Your task to perform on an android device: Search for sushi restaurants on Maps Image 0: 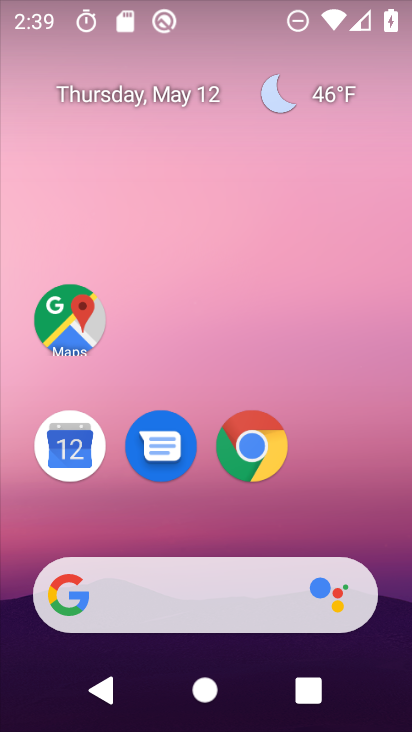
Step 0: click (81, 331)
Your task to perform on an android device: Search for sushi restaurants on Maps Image 1: 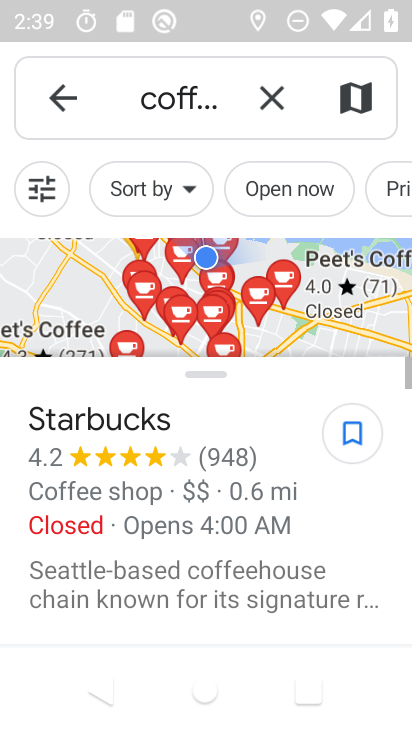
Step 1: click (280, 92)
Your task to perform on an android device: Search for sushi restaurants on Maps Image 2: 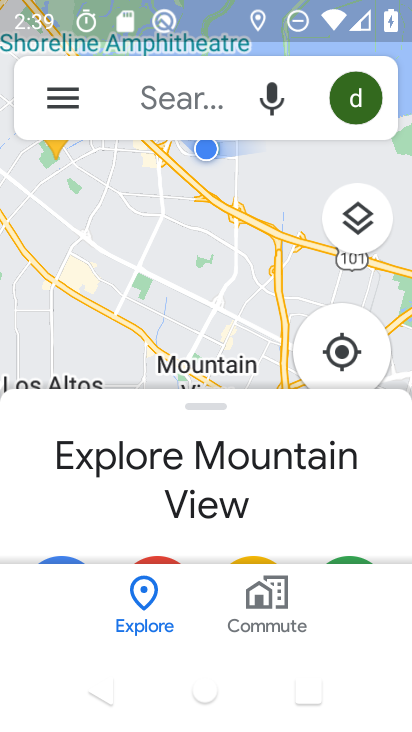
Step 2: click (228, 79)
Your task to perform on an android device: Search for sushi restaurants on Maps Image 3: 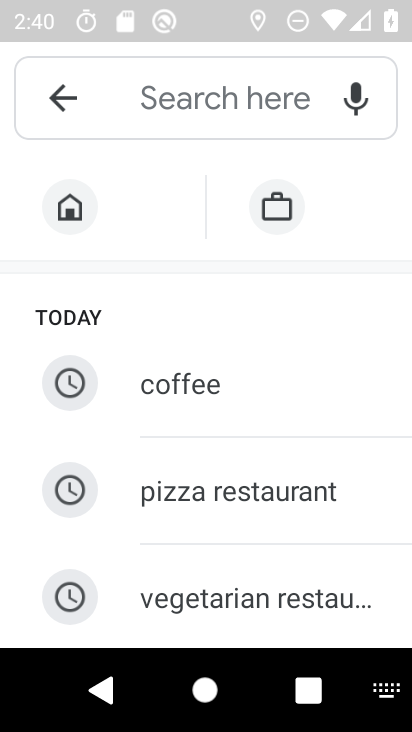
Step 3: type "sushi restaurants"
Your task to perform on an android device: Search for sushi restaurants on Maps Image 4: 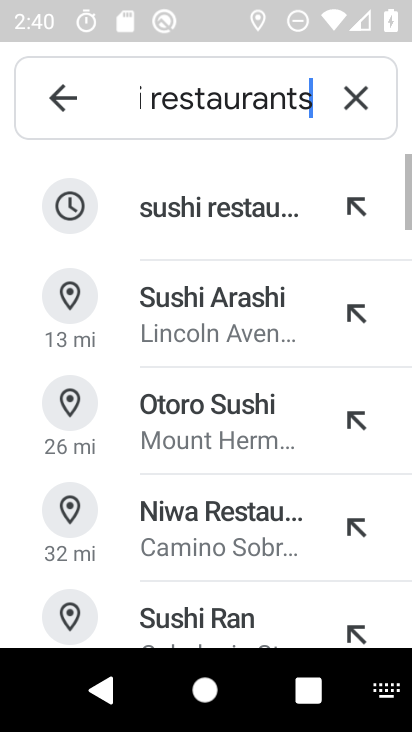
Step 4: click (201, 205)
Your task to perform on an android device: Search for sushi restaurants on Maps Image 5: 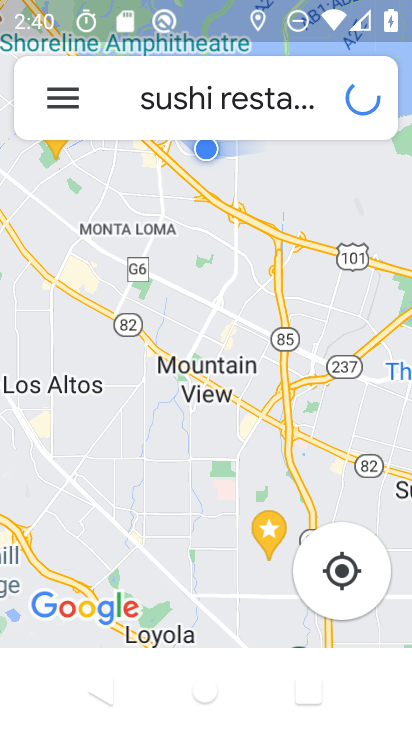
Step 5: task complete